Your task to perform on an android device: move an email to a new category in the gmail app Image 0: 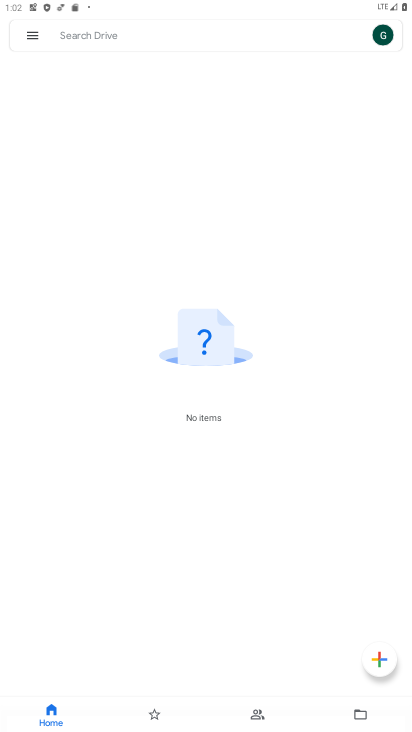
Step 0: drag from (226, 729) to (259, 277)
Your task to perform on an android device: move an email to a new category in the gmail app Image 1: 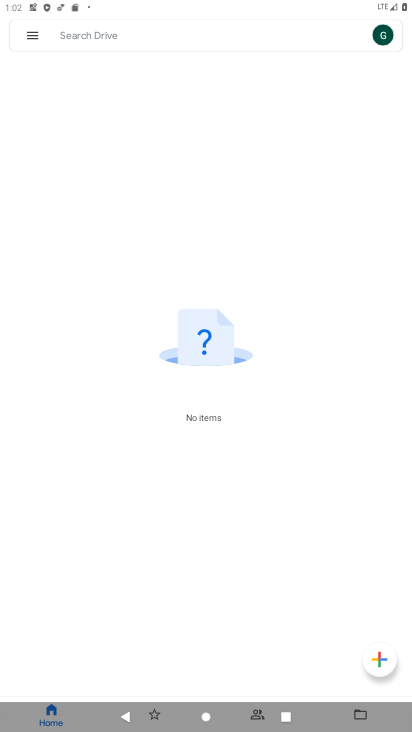
Step 1: press home button
Your task to perform on an android device: move an email to a new category in the gmail app Image 2: 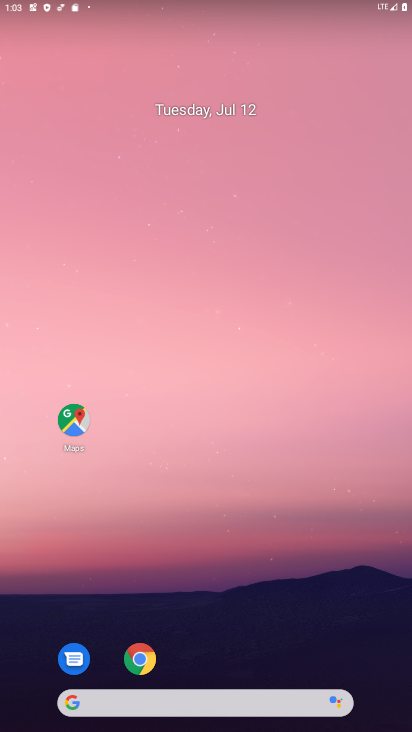
Step 2: drag from (188, 727) to (203, 177)
Your task to perform on an android device: move an email to a new category in the gmail app Image 3: 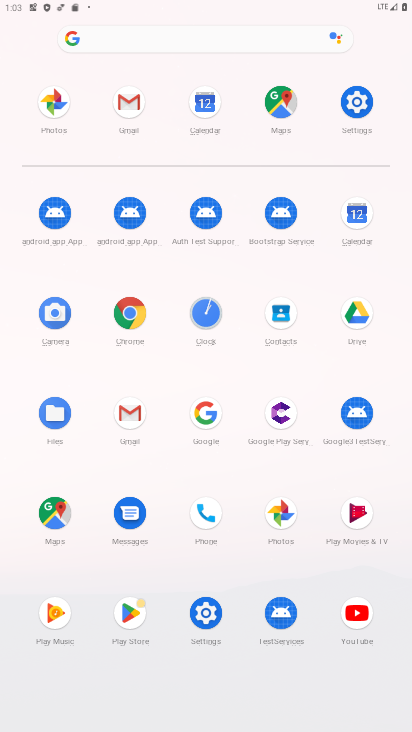
Step 3: click (128, 410)
Your task to perform on an android device: move an email to a new category in the gmail app Image 4: 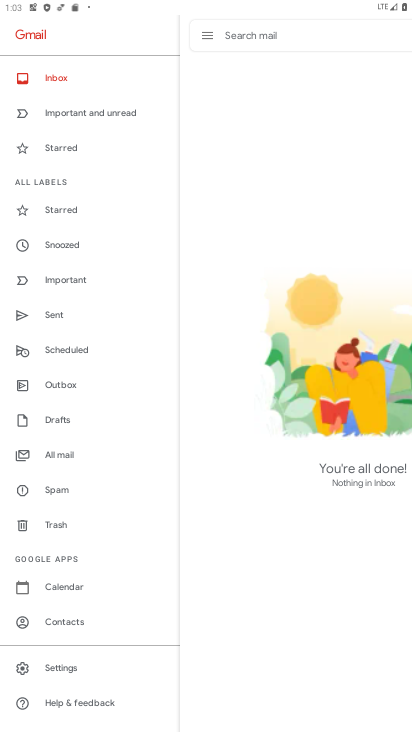
Step 4: click (53, 82)
Your task to perform on an android device: move an email to a new category in the gmail app Image 5: 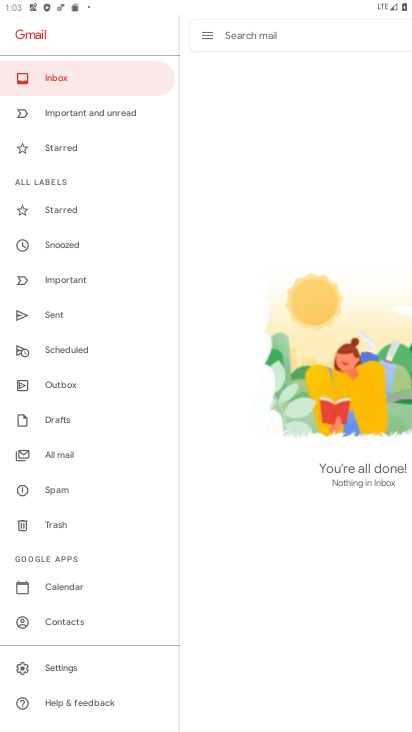
Step 5: task complete